Your task to perform on an android device: open app "Airtel Thanks" Image 0: 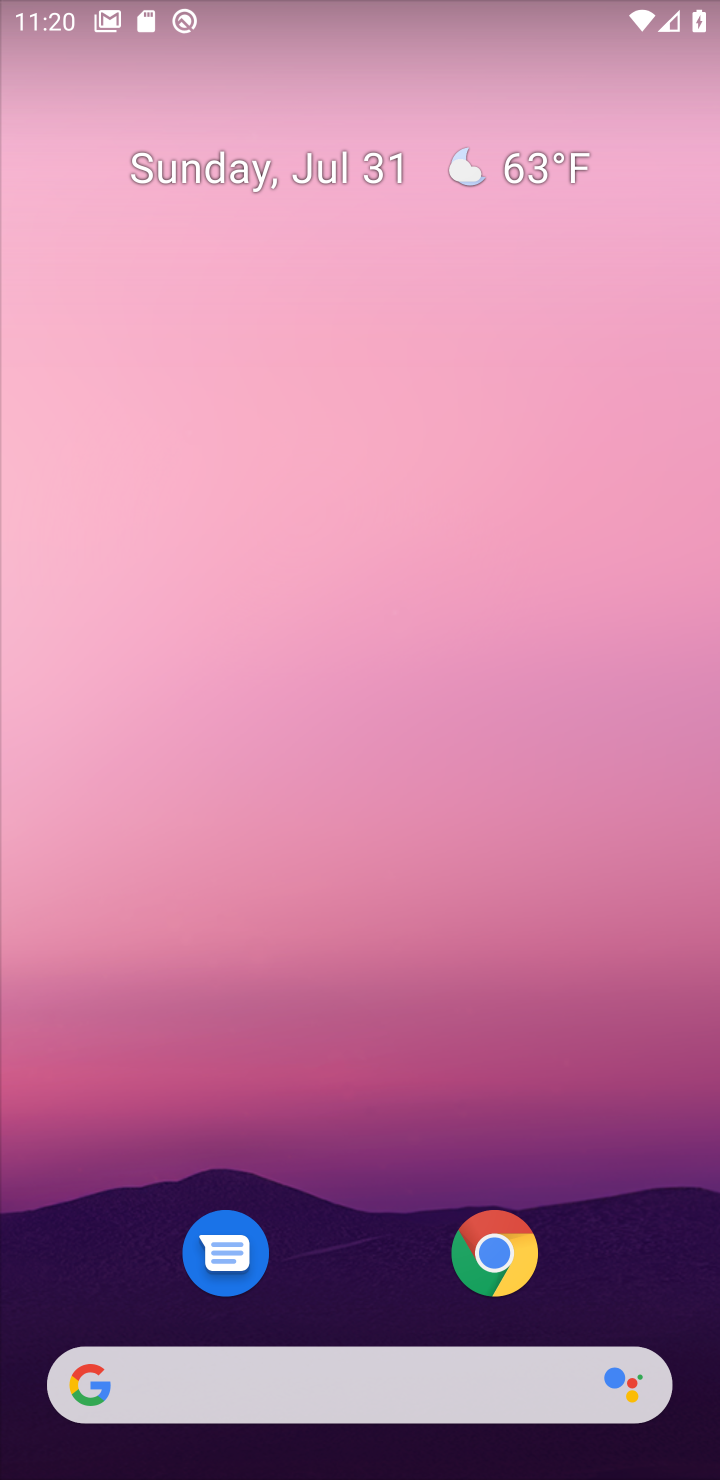
Step 0: drag from (335, 1166) to (533, 174)
Your task to perform on an android device: open app "Airtel Thanks" Image 1: 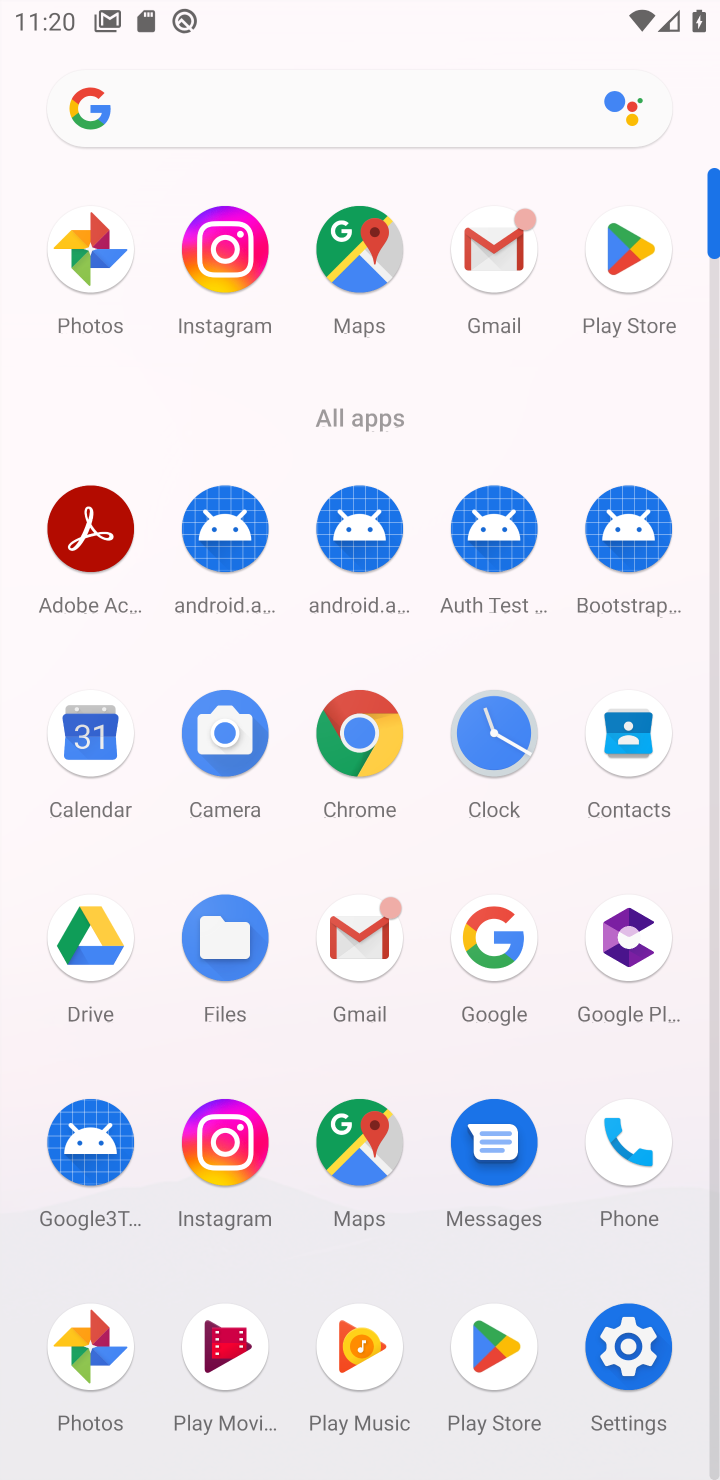
Step 1: click (618, 241)
Your task to perform on an android device: open app "Airtel Thanks" Image 2: 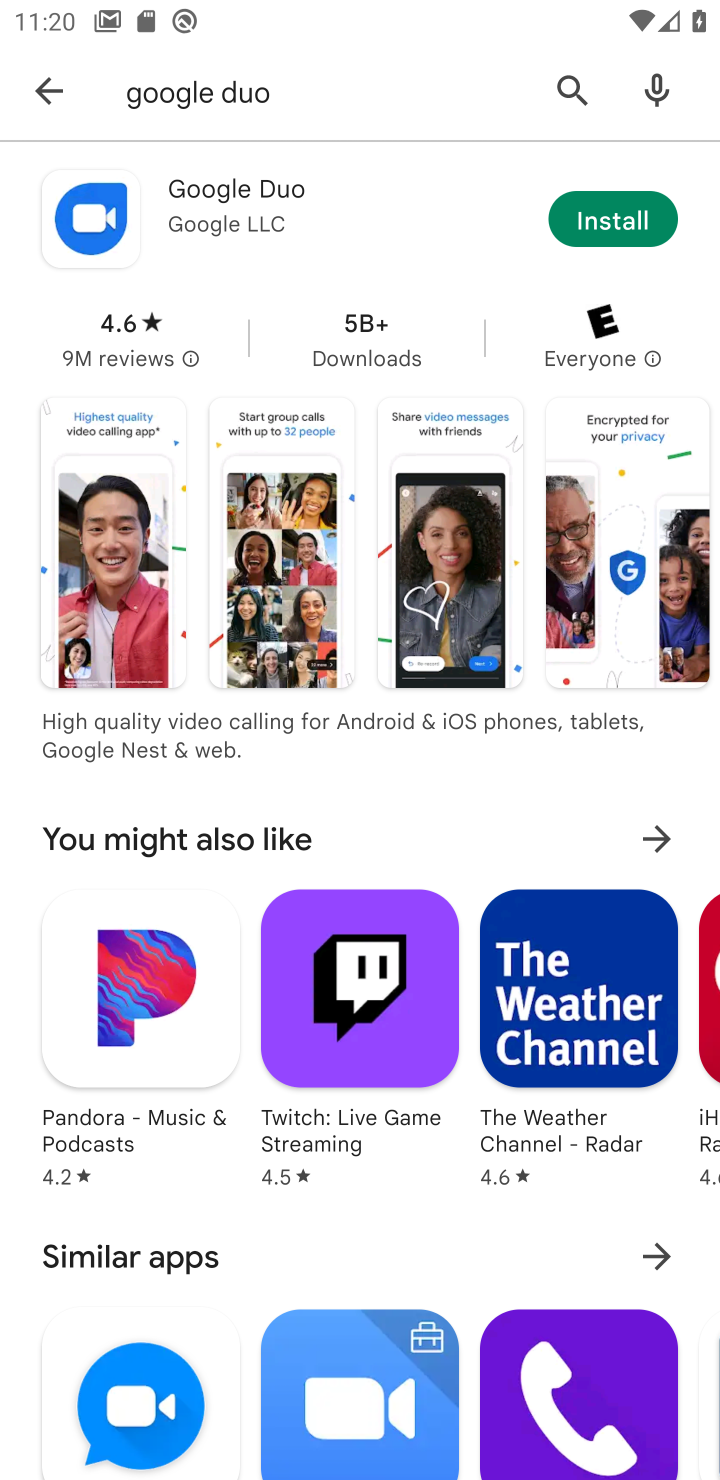
Step 2: click (328, 77)
Your task to perform on an android device: open app "Airtel Thanks" Image 3: 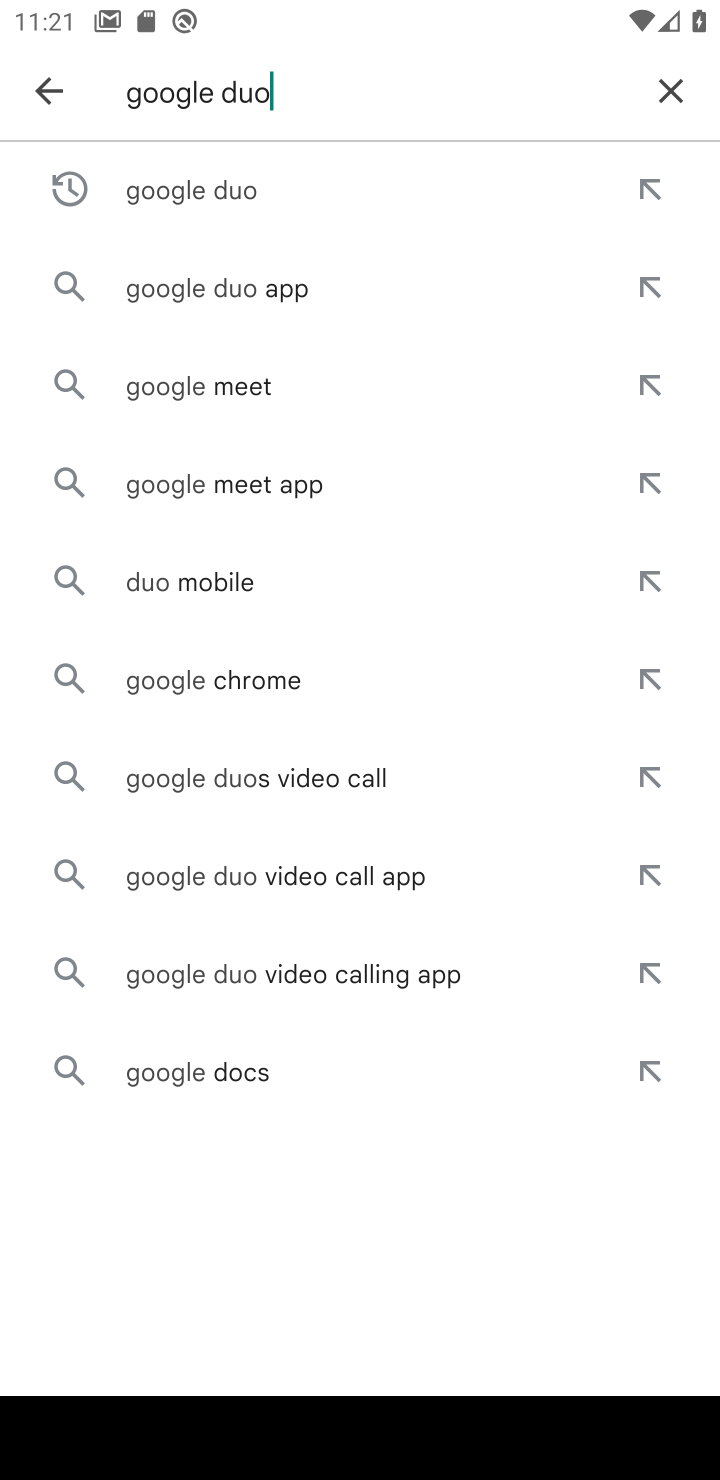
Step 3: click (671, 95)
Your task to perform on an android device: open app "Airtel Thanks" Image 4: 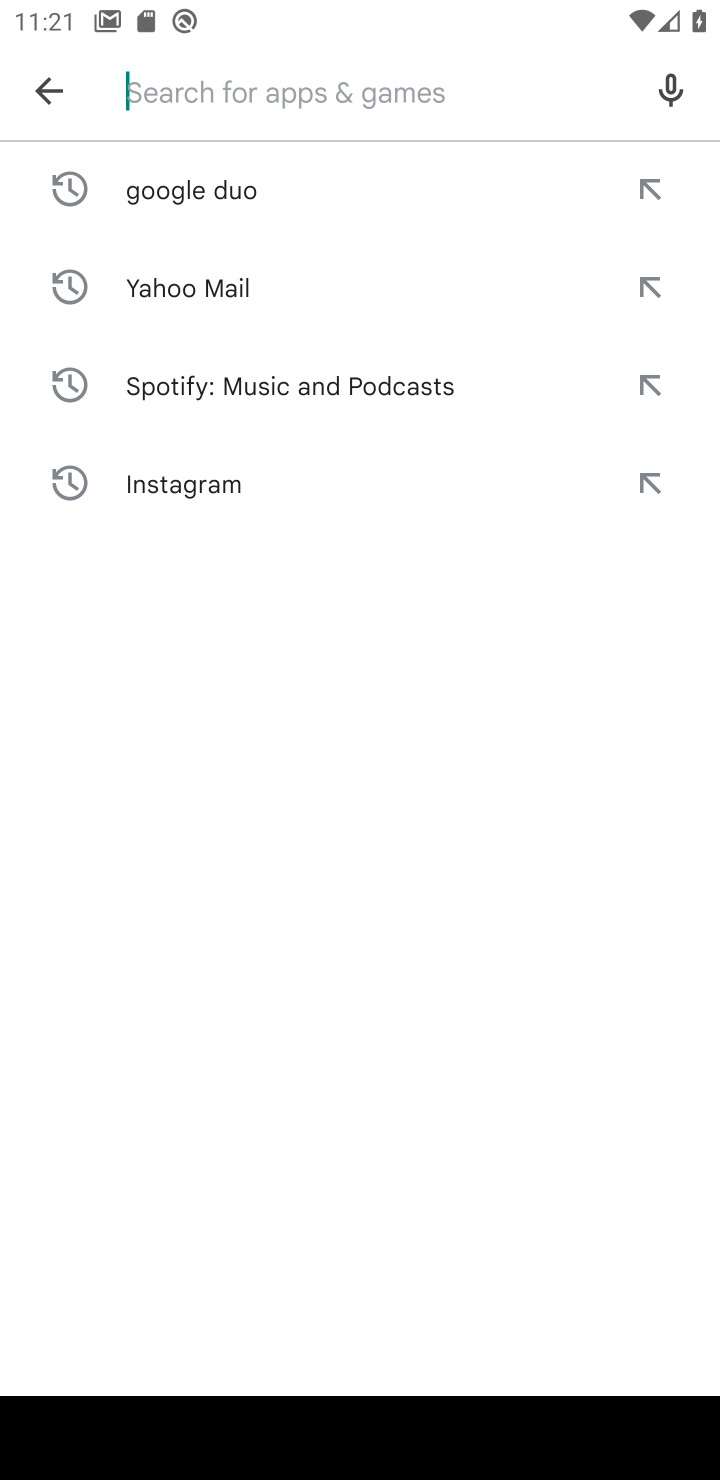
Step 4: type "Airtel Thanks"
Your task to perform on an android device: open app "Airtel Thanks" Image 5: 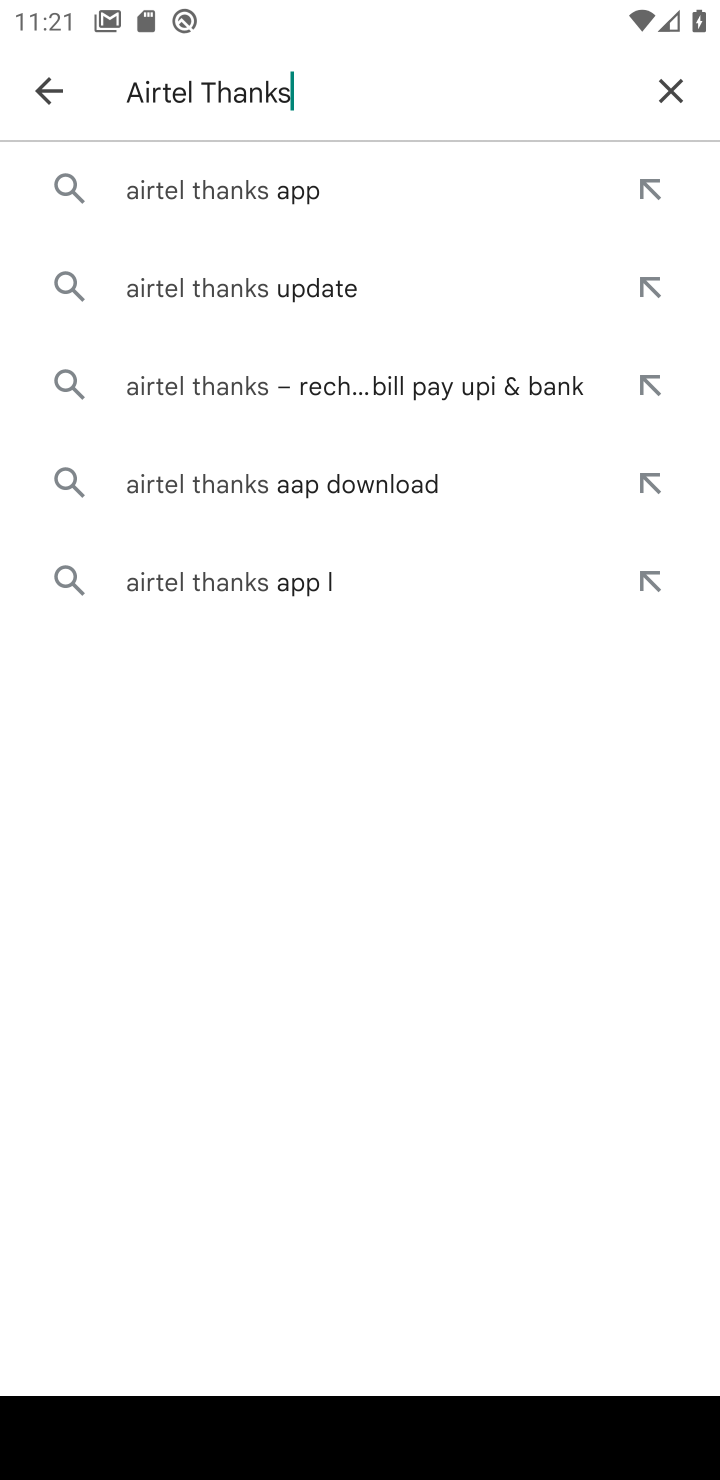
Step 5: press enter
Your task to perform on an android device: open app "Airtel Thanks" Image 6: 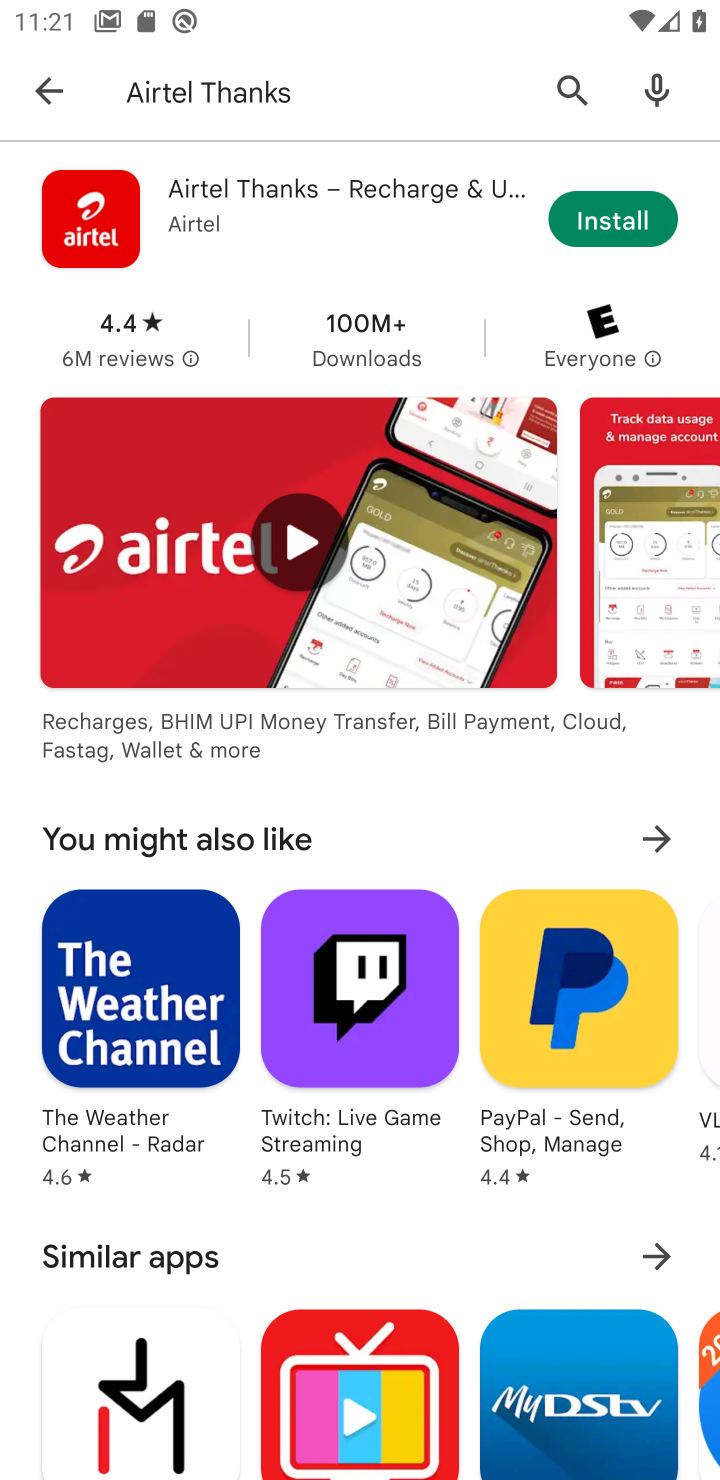
Step 6: task complete